Your task to perform on an android device: Open maps Image 0: 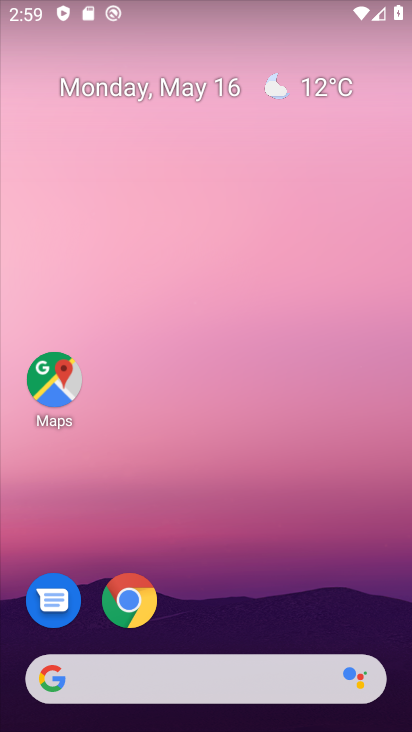
Step 0: drag from (219, 646) to (208, 4)
Your task to perform on an android device: Open maps Image 1: 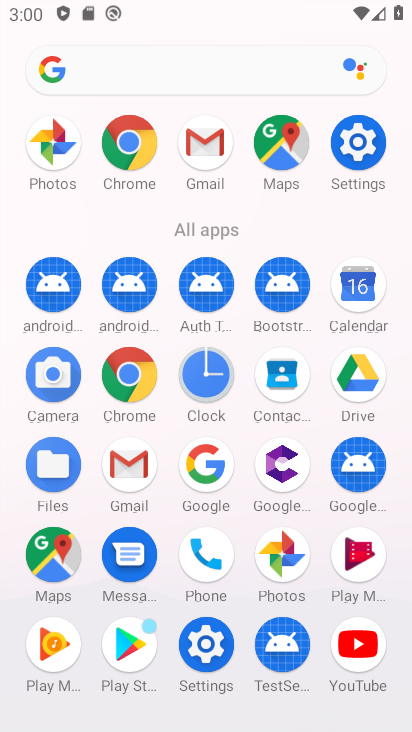
Step 1: click (41, 551)
Your task to perform on an android device: Open maps Image 2: 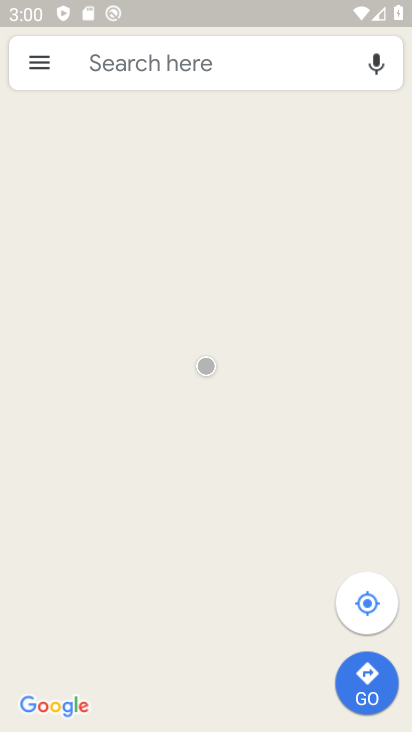
Step 2: task complete